Your task to perform on an android device: Do I have any events this weekend? Image 0: 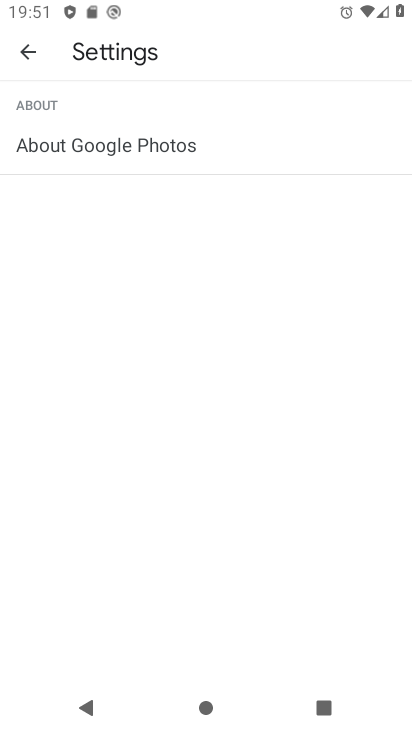
Step 0: press home button
Your task to perform on an android device: Do I have any events this weekend? Image 1: 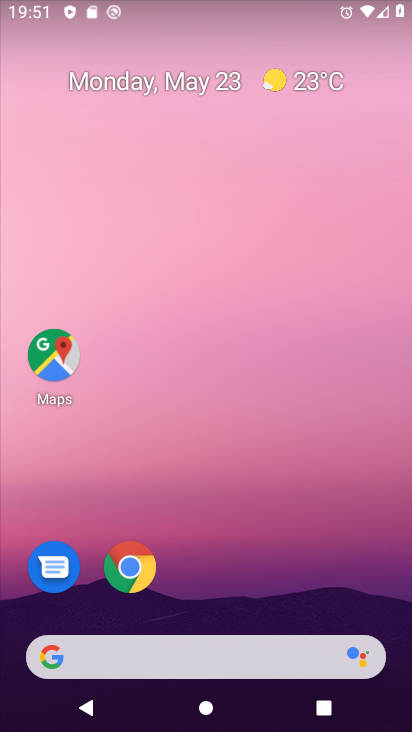
Step 1: drag from (311, 619) to (349, 317)
Your task to perform on an android device: Do I have any events this weekend? Image 2: 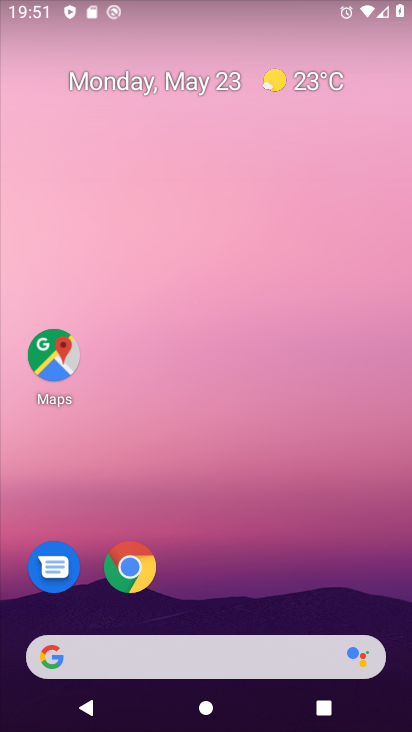
Step 2: drag from (272, 639) to (254, 273)
Your task to perform on an android device: Do I have any events this weekend? Image 3: 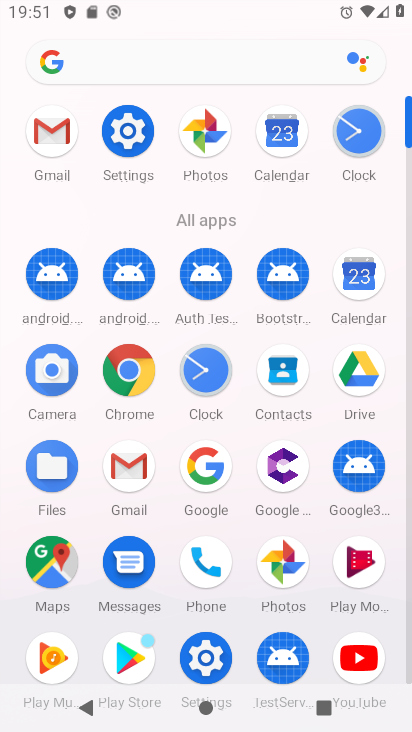
Step 3: click (360, 269)
Your task to perform on an android device: Do I have any events this weekend? Image 4: 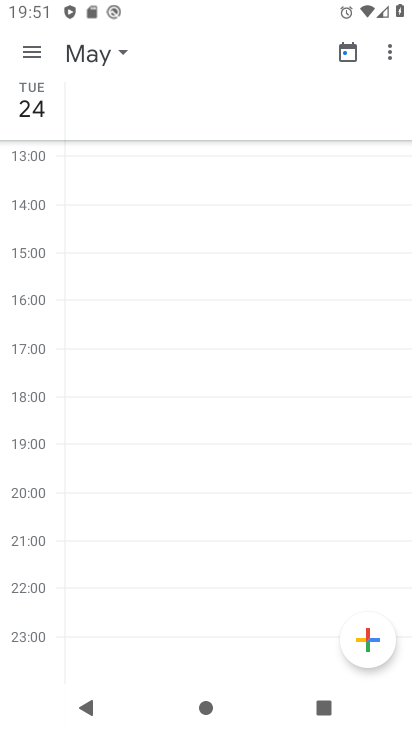
Step 4: click (33, 50)
Your task to perform on an android device: Do I have any events this weekend? Image 5: 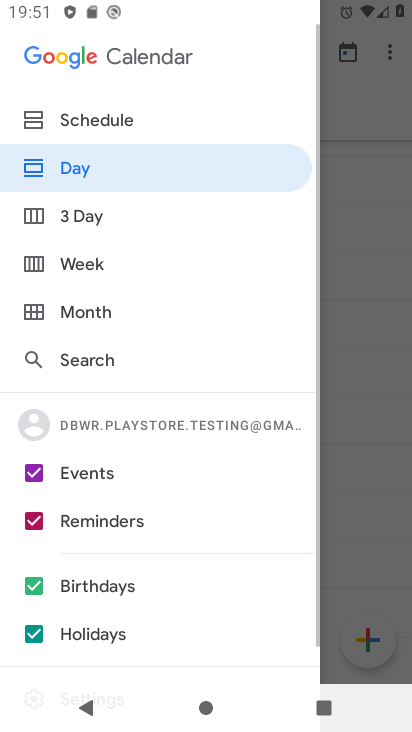
Step 5: click (87, 256)
Your task to perform on an android device: Do I have any events this weekend? Image 6: 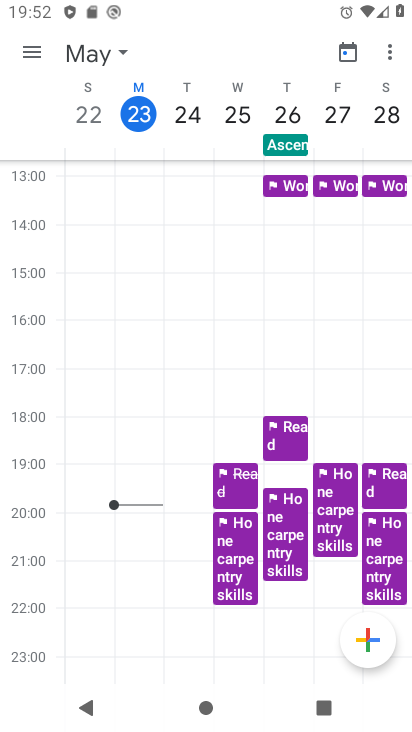
Step 6: task complete